Your task to perform on an android device: Toggle the flashlight Image 0: 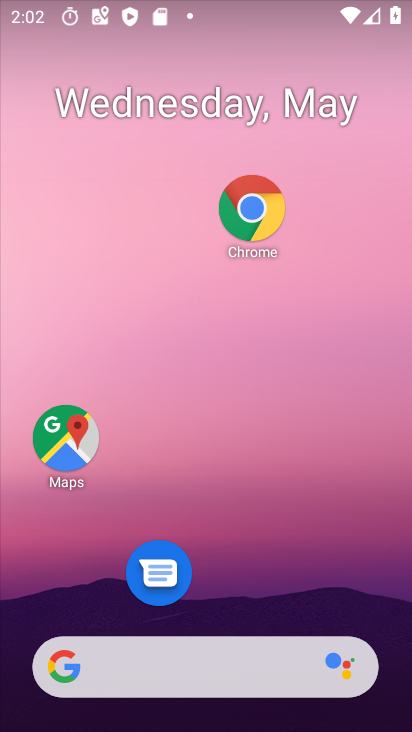
Step 0: drag from (237, 615) to (163, 64)
Your task to perform on an android device: Toggle the flashlight Image 1: 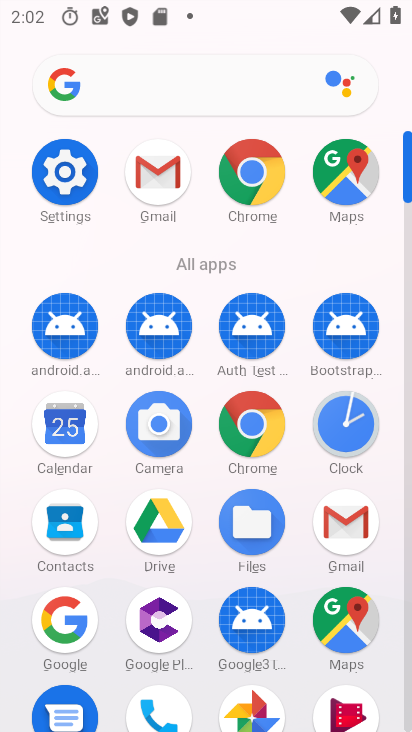
Step 1: click (60, 158)
Your task to perform on an android device: Toggle the flashlight Image 2: 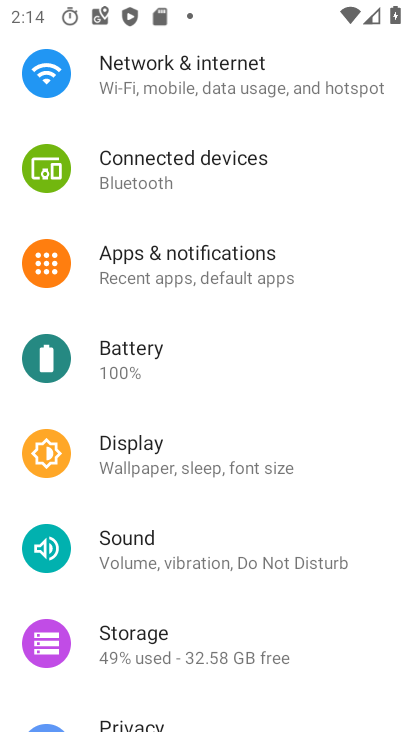
Step 2: task complete